Your task to perform on an android device: Open Android settings Image 0: 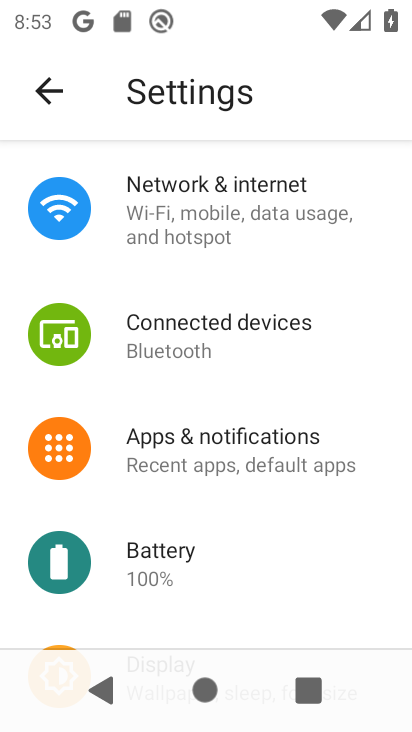
Step 0: drag from (379, 547) to (379, 376)
Your task to perform on an android device: Open Android settings Image 1: 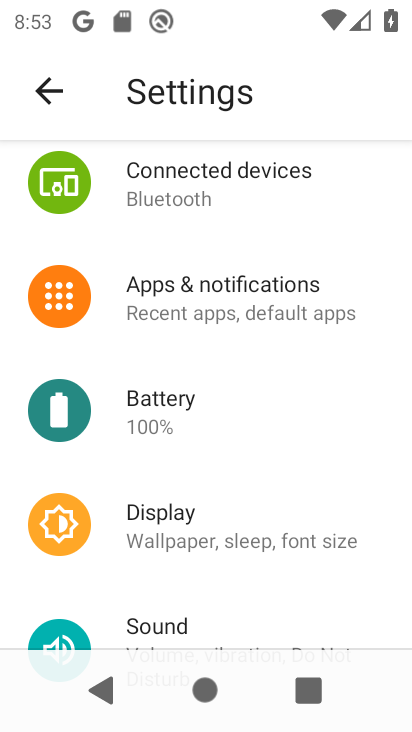
Step 1: drag from (372, 483) to (375, 358)
Your task to perform on an android device: Open Android settings Image 2: 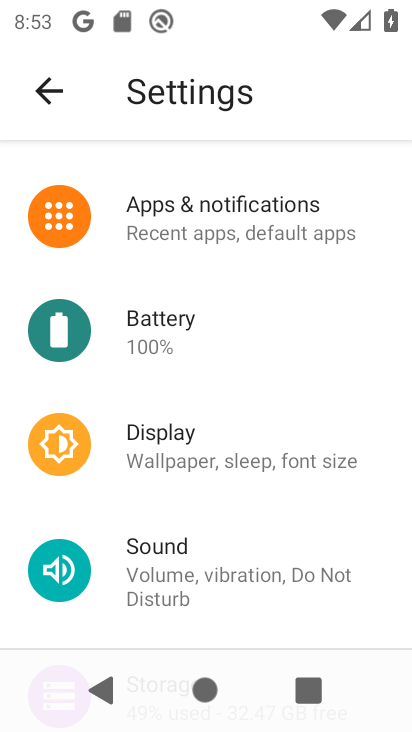
Step 2: drag from (377, 517) to (374, 372)
Your task to perform on an android device: Open Android settings Image 3: 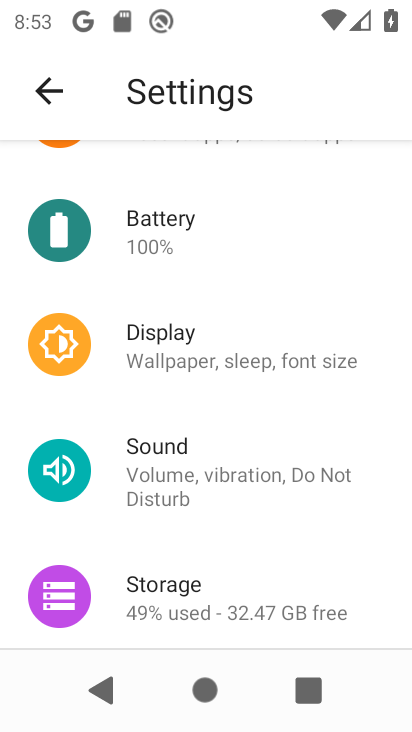
Step 3: drag from (374, 534) to (379, 391)
Your task to perform on an android device: Open Android settings Image 4: 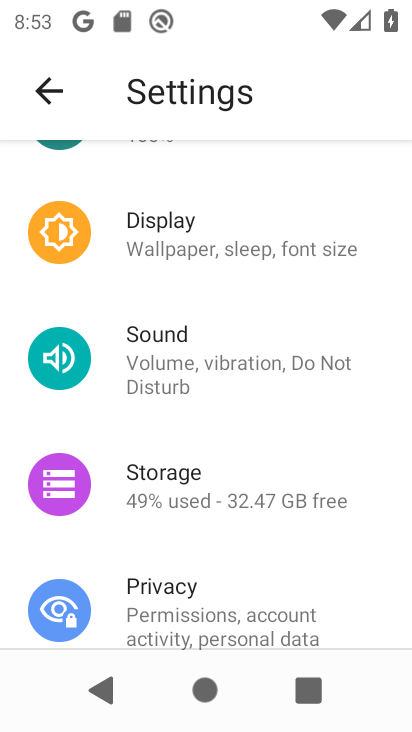
Step 4: drag from (361, 527) to (363, 397)
Your task to perform on an android device: Open Android settings Image 5: 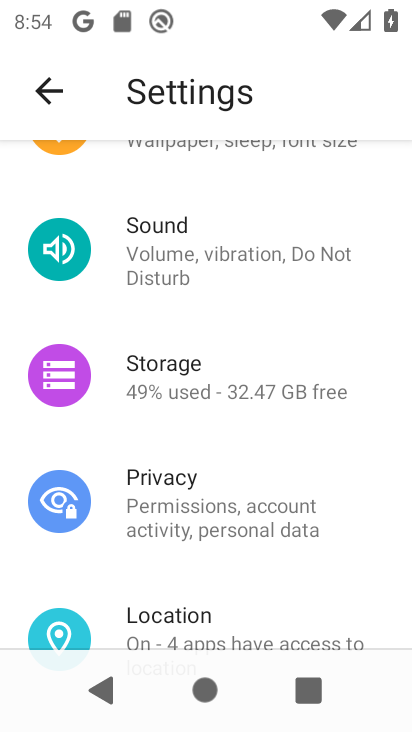
Step 5: drag from (364, 555) to (375, 410)
Your task to perform on an android device: Open Android settings Image 6: 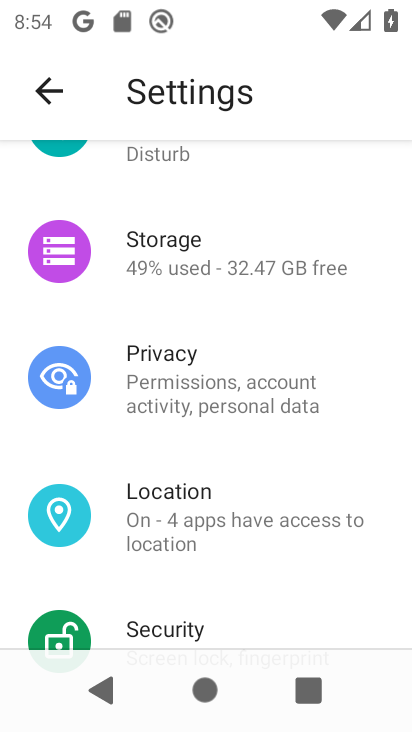
Step 6: drag from (383, 580) to (385, 427)
Your task to perform on an android device: Open Android settings Image 7: 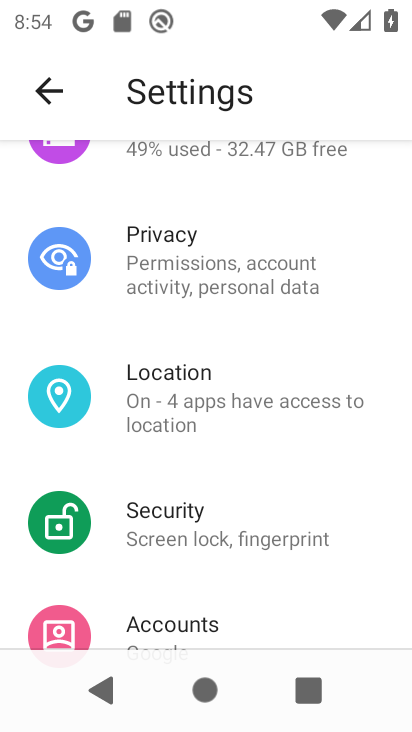
Step 7: drag from (376, 601) to (380, 418)
Your task to perform on an android device: Open Android settings Image 8: 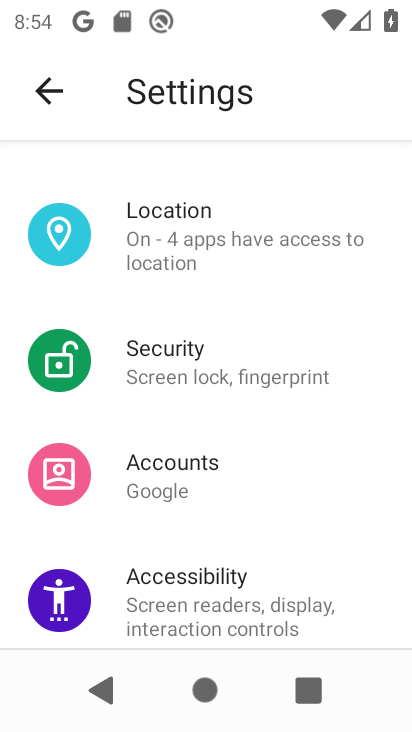
Step 8: drag from (372, 507) to (381, 385)
Your task to perform on an android device: Open Android settings Image 9: 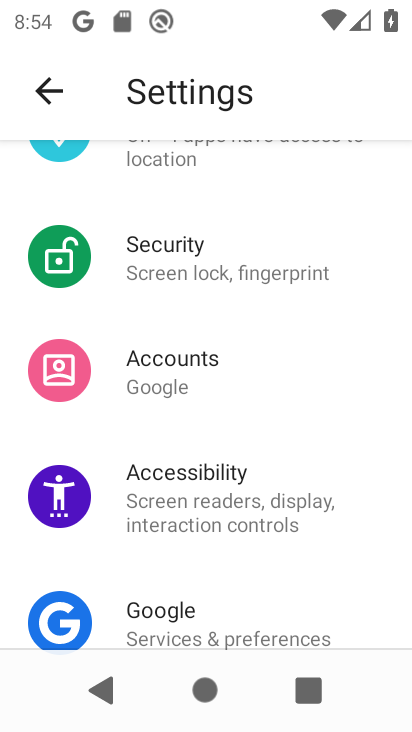
Step 9: drag from (377, 591) to (371, 430)
Your task to perform on an android device: Open Android settings Image 10: 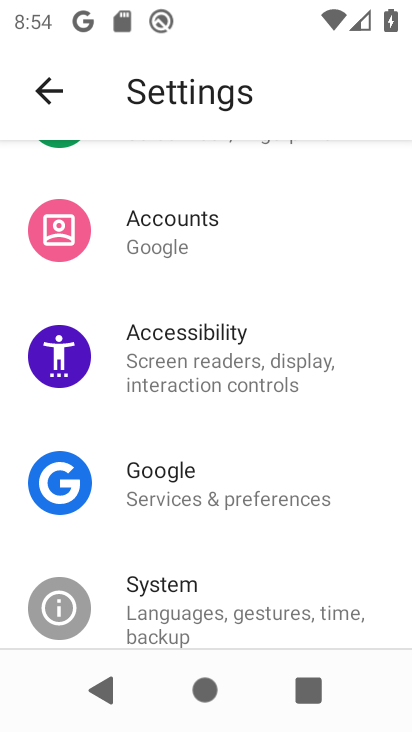
Step 10: drag from (376, 576) to (380, 395)
Your task to perform on an android device: Open Android settings Image 11: 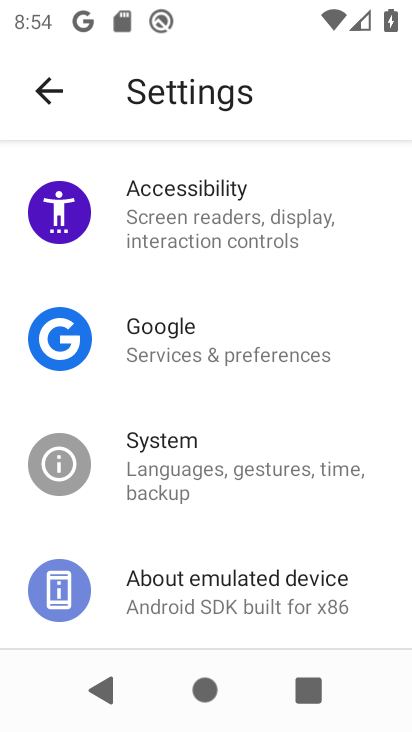
Step 11: click (278, 466)
Your task to perform on an android device: Open Android settings Image 12: 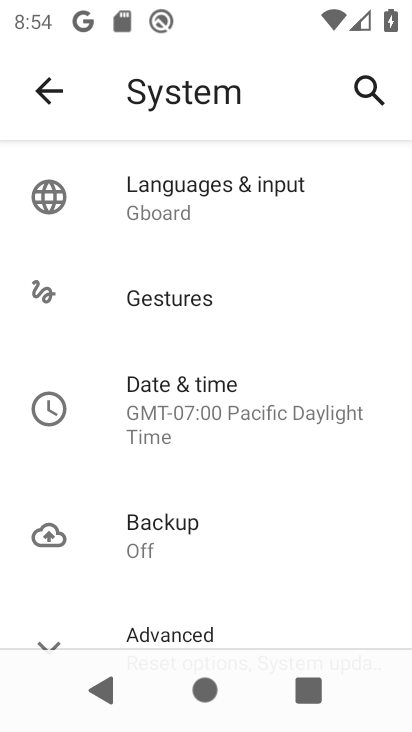
Step 12: drag from (367, 583) to (373, 324)
Your task to perform on an android device: Open Android settings Image 13: 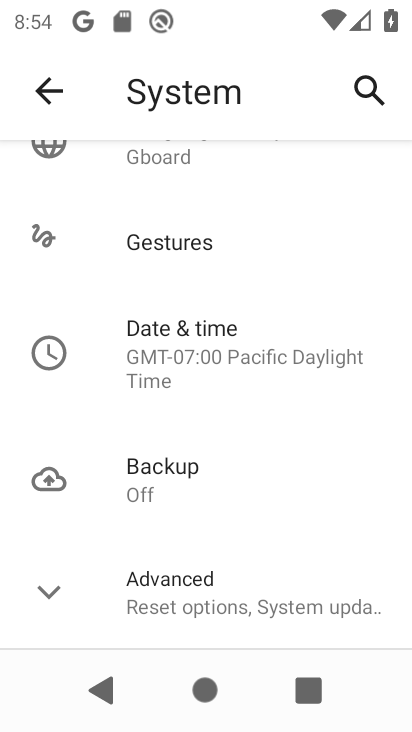
Step 13: click (267, 603)
Your task to perform on an android device: Open Android settings Image 14: 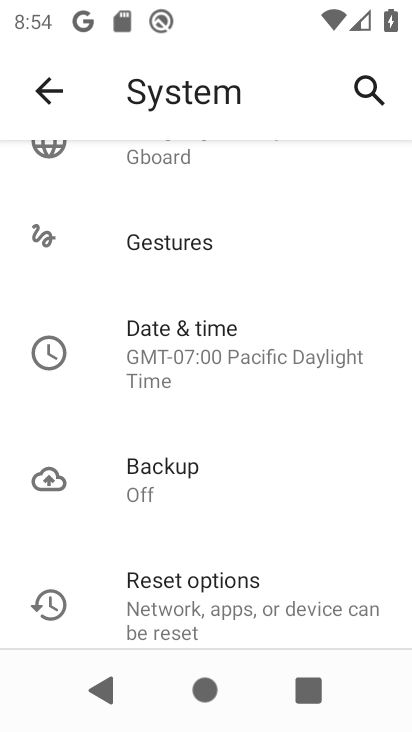
Step 14: drag from (366, 543) to (370, 269)
Your task to perform on an android device: Open Android settings Image 15: 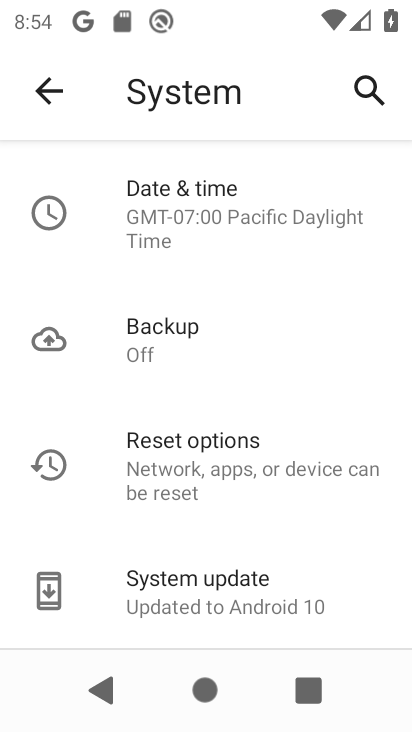
Step 15: click (248, 600)
Your task to perform on an android device: Open Android settings Image 16: 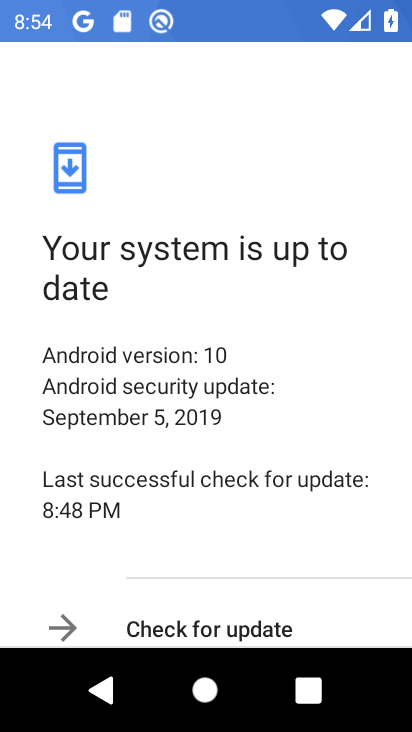
Step 16: task complete